Your task to perform on an android device: Open settings on Google Maps Image 0: 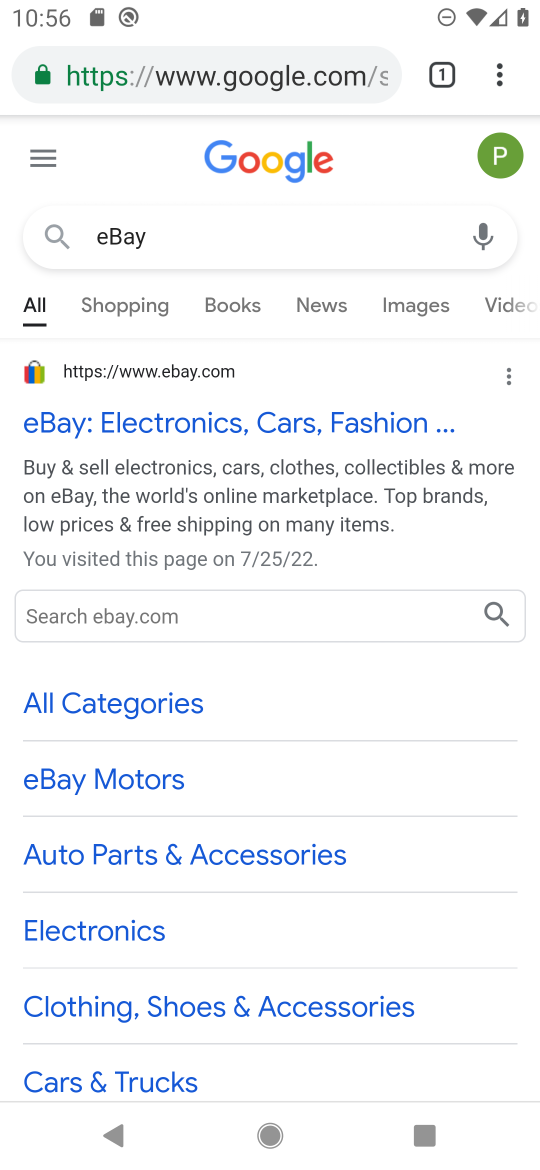
Step 0: press home button
Your task to perform on an android device: Open settings on Google Maps Image 1: 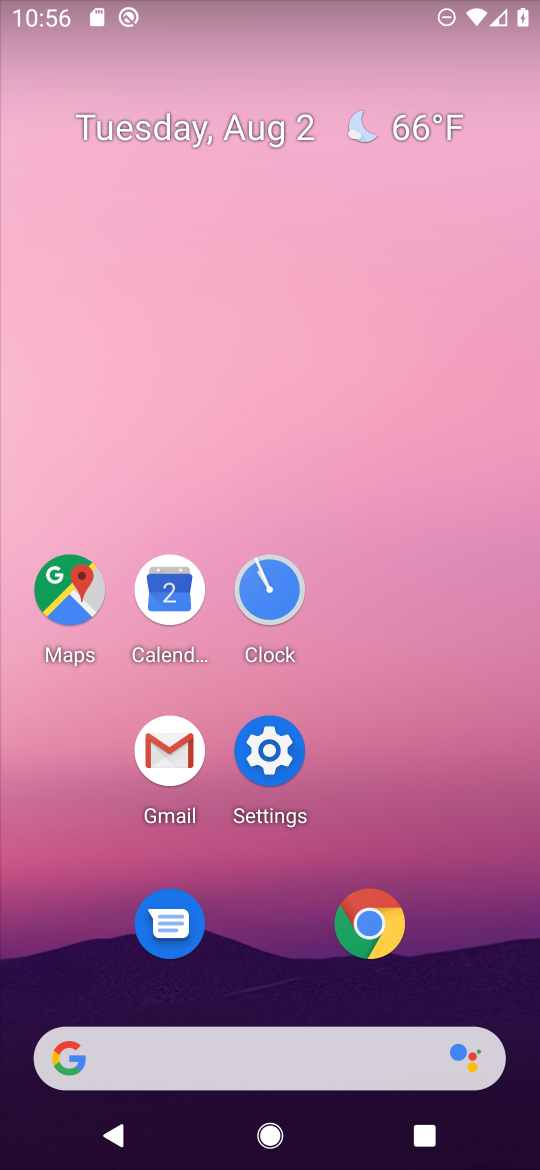
Step 1: click (47, 589)
Your task to perform on an android device: Open settings on Google Maps Image 2: 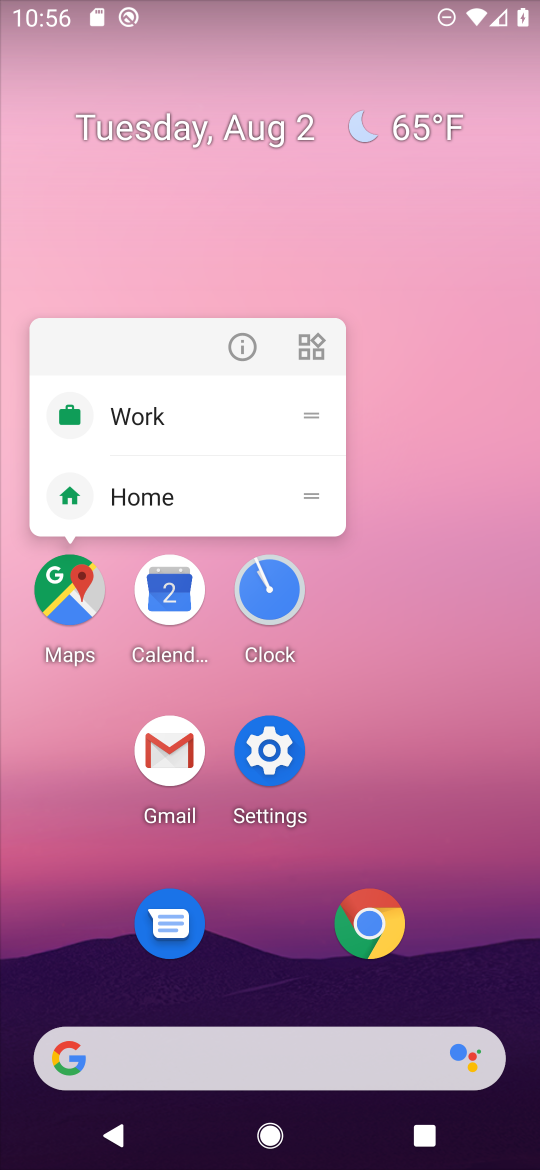
Step 2: click (49, 592)
Your task to perform on an android device: Open settings on Google Maps Image 3: 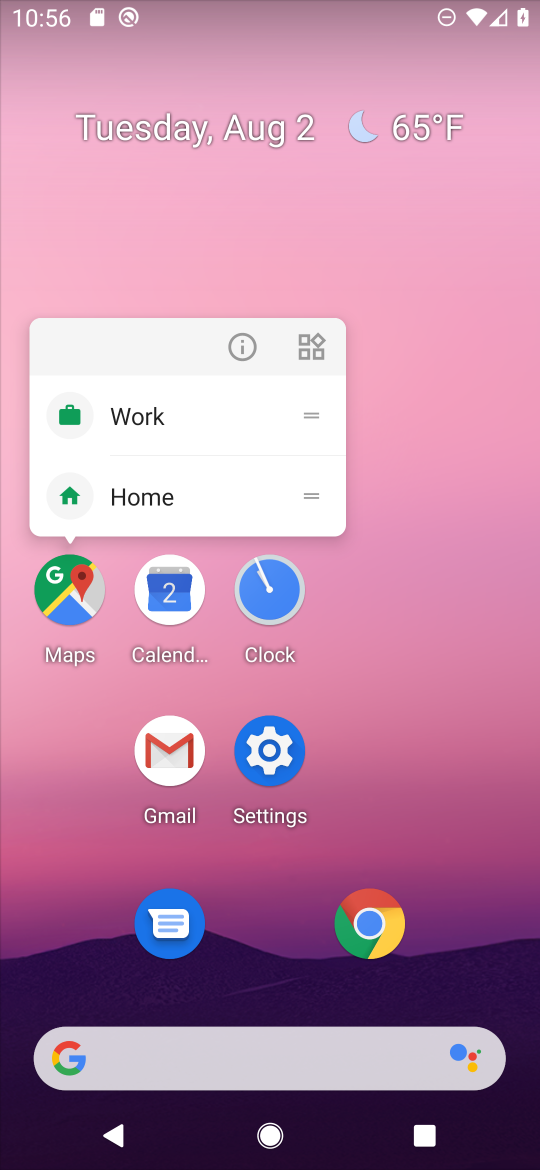
Step 3: click (69, 580)
Your task to perform on an android device: Open settings on Google Maps Image 4: 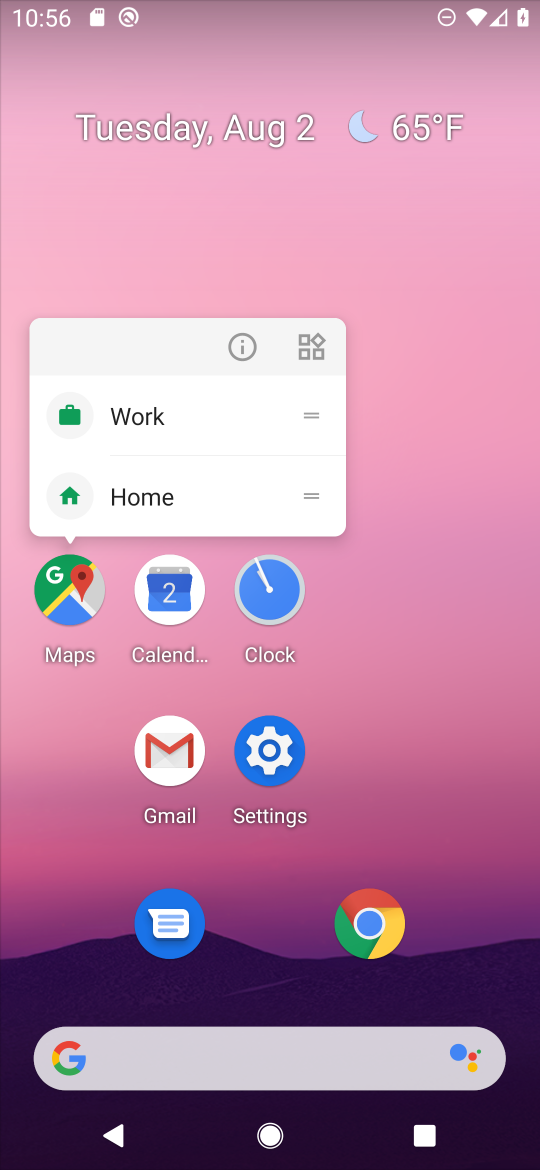
Step 4: click (68, 586)
Your task to perform on an android device: Open settings on Google Maps Image 5: 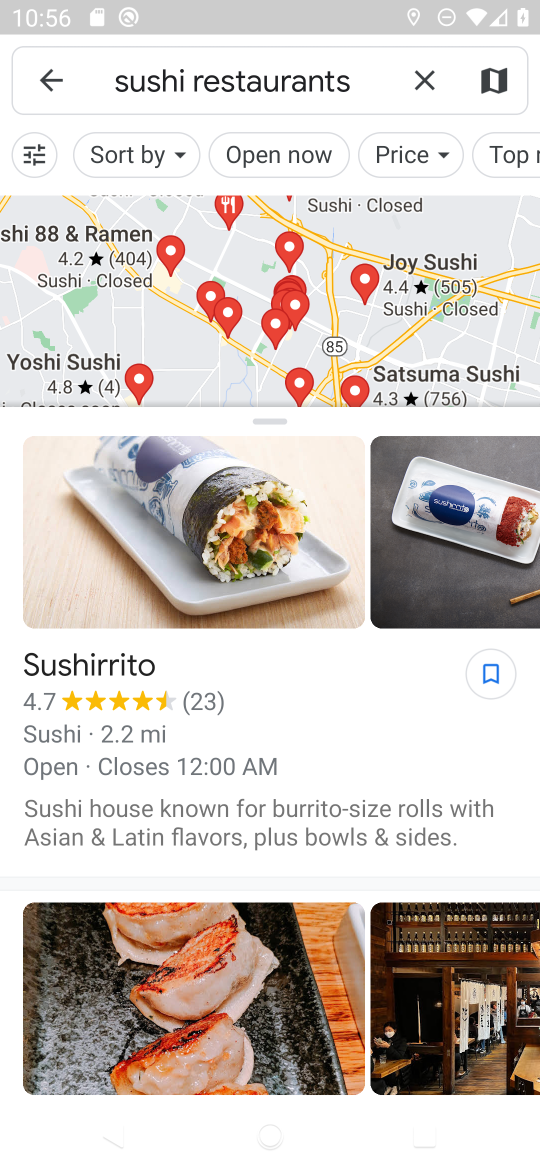
Step 5: click (41, 83)
Your task to perform on an android device: Open settings on Google Maps Image 6: 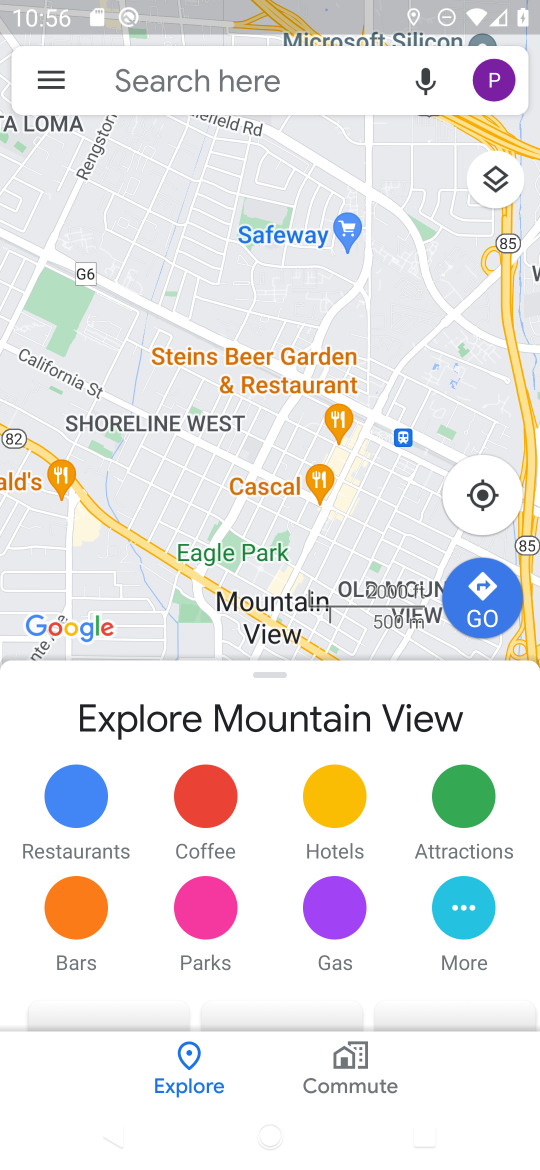
Step 6: task complete